Your task to perform on an android device: turn vacation reply on in the gmail app Image 0: 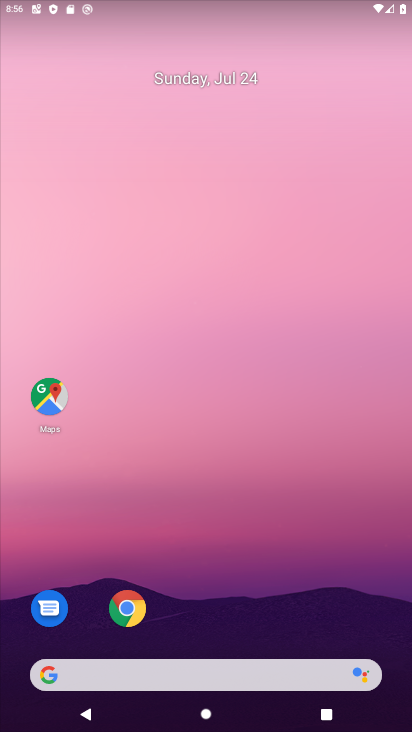
Step 0: drag from (264, 631) to (272, 203)
Your task to perform on an android device: turn vacation reply on in the gmail app Image 1: 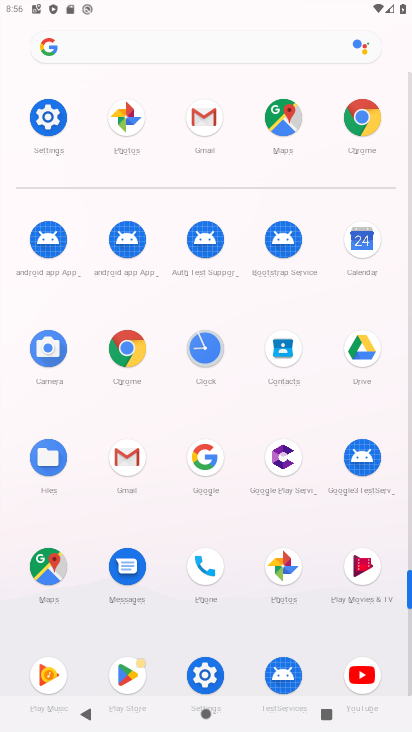
Step 1: click (125, 464)
Your task to perform on an android device: turn vacation reply on in the gmail app Image 2: 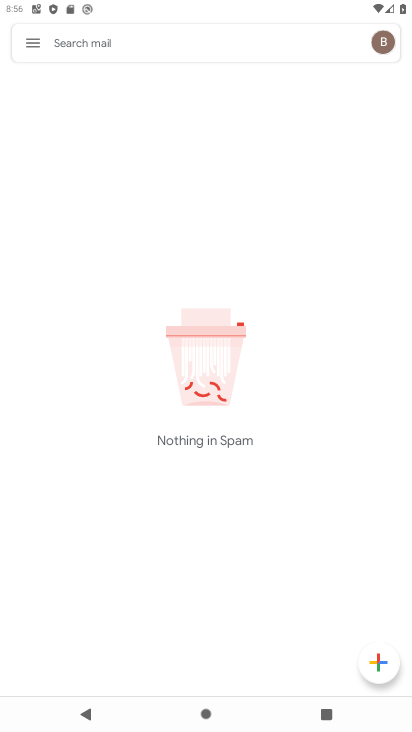
Step 2: click (26, 47)
Your task to perform on an android device: turn vacation reply on in the gmail app Image 3: 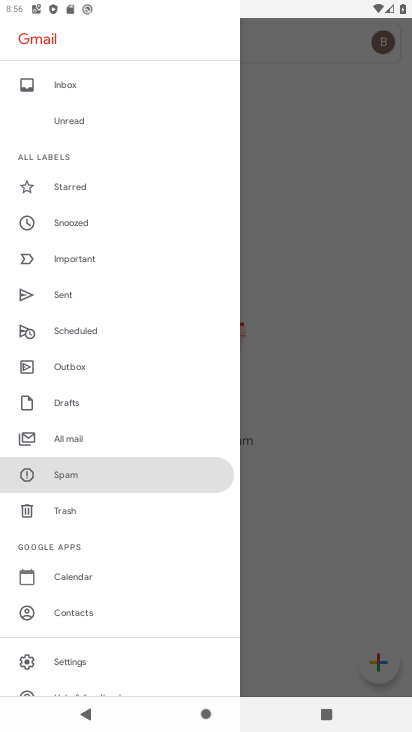
Step 3: drag from (93, 475) to (105, 402)
Your task to perform on an android device: turn vacation reply on in the gmail app Image 4: 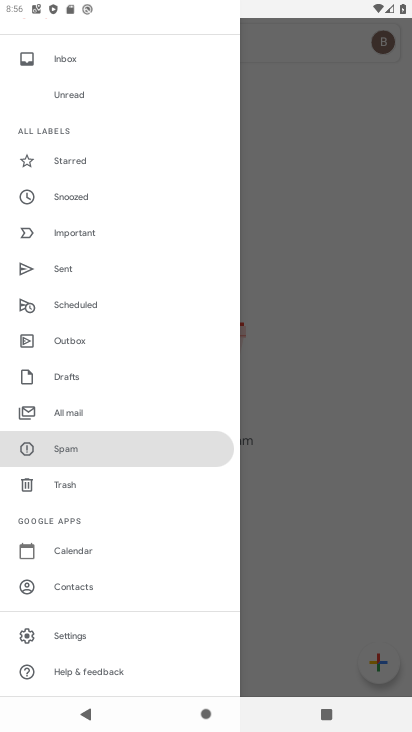
Step 4: click (78, 630)
Your task to perform on an android device: turn vacation reply on in the gmail app Image 5: 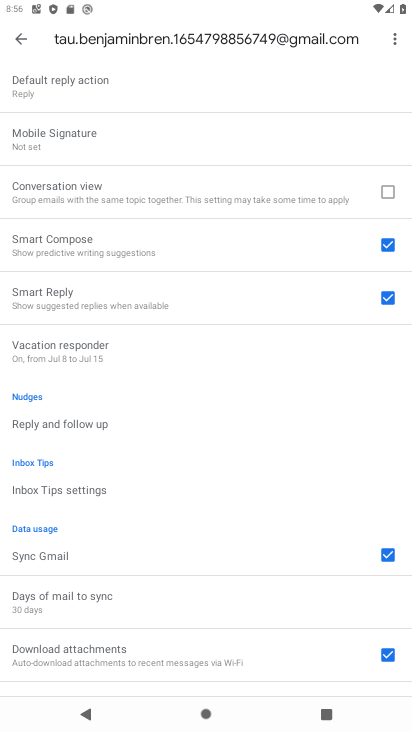
Step 5: click (83, 348)
Your task to perform on an android device: turn vacation reply on in the gmail app Image 6: 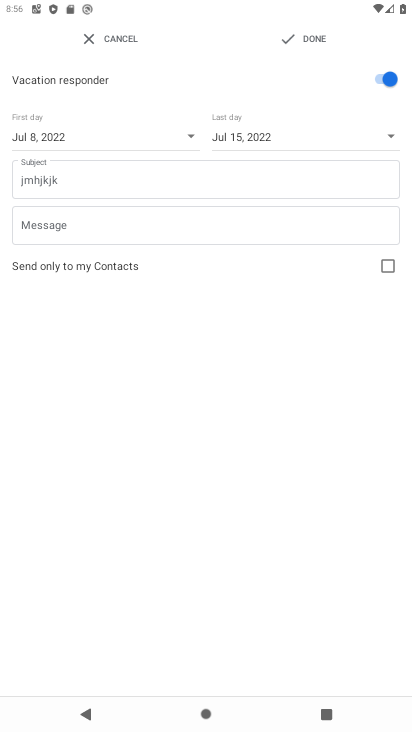
Step 6: task complete